Your task to perform on an android device: see sites visited before in the chrome app Image 0: 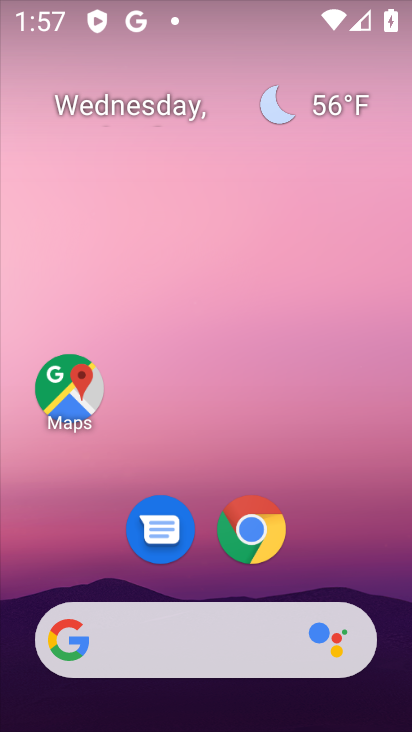
Step 0: click (271, 541)
Your task to perform on an android device: see sites visited before in the chrome app Image 1: 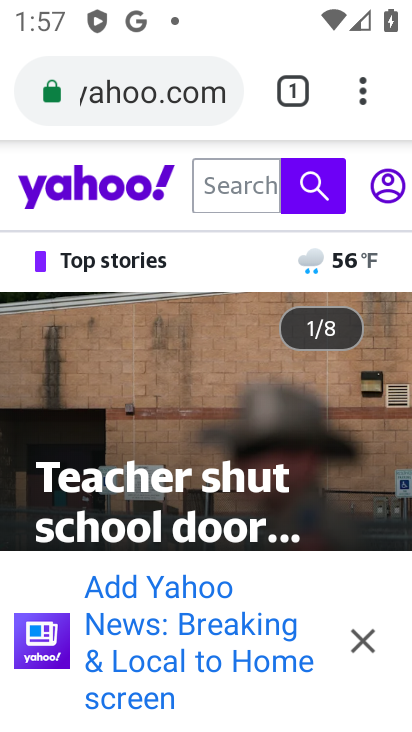
Step 1: click (369, 108)
Your task to perform on an android device: see sites visited before in the chrome app Image 2: 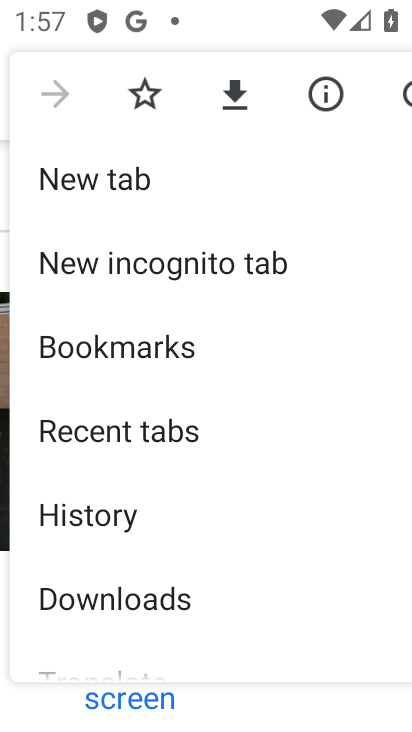
Step 2: click (135, 514)
Your task to perform on an android device: see sites visited before in the chrome app Image 3: 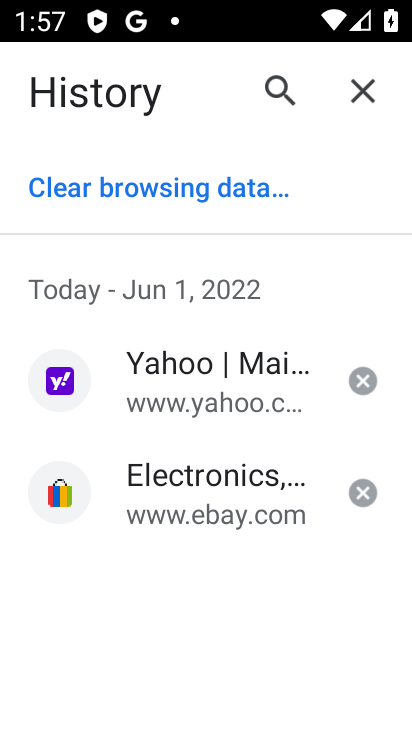
Step 3: task complete